Your task to perform on an android device: turn on sleep mode Image 0: 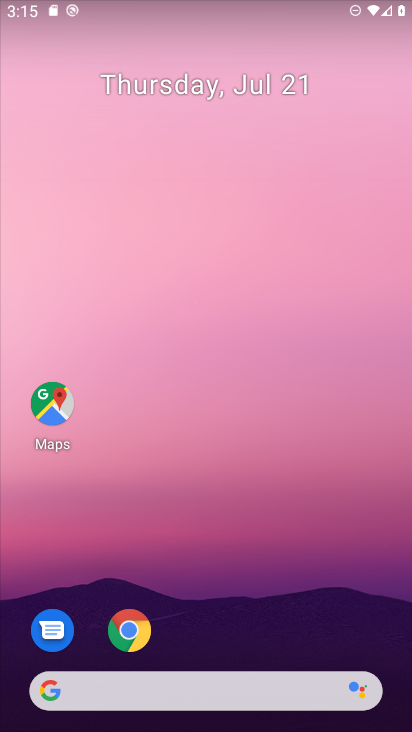
Step 0: drag from (217, 611) to (218, 11)
Your task to perform on an android device: turn on sleep mode Image 1: 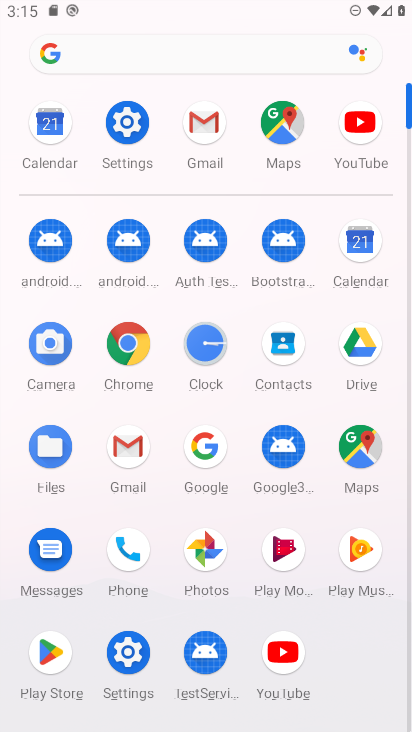
Step 1: click (135, 115)
Your task to perform on an android device: turn on sleep mode Image 2: 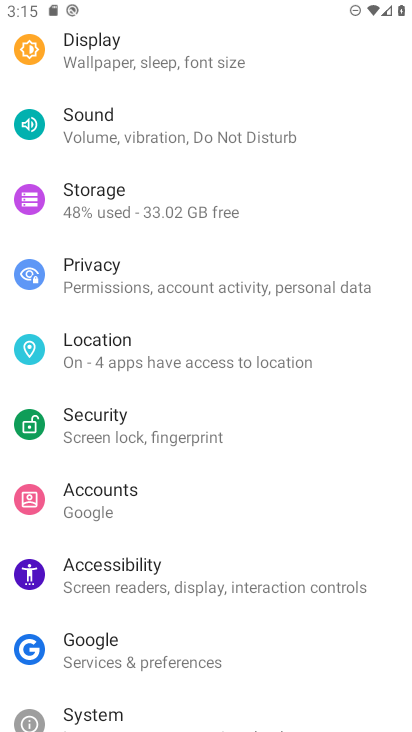
Step 2: drag from (213, 123) to (126, 687)
Your task to perform on an android device: turn on sleep mode Image 3: 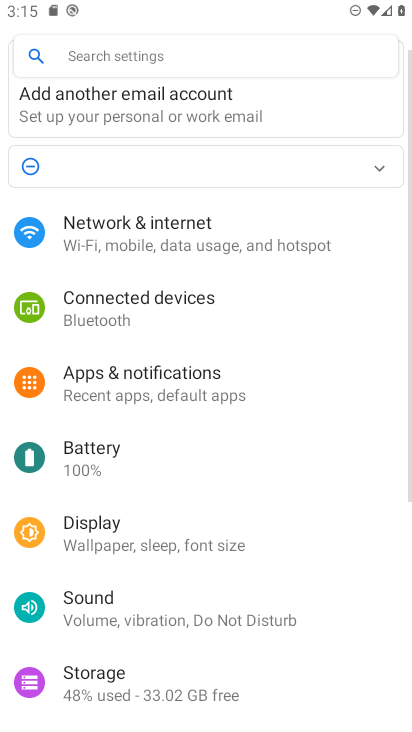
Step 3: click (153, 62)
Your task to perform on an android device: turn on sleep mode Image 4: 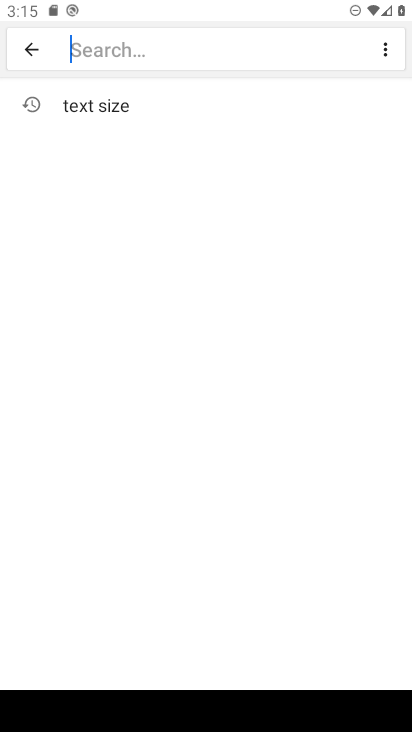
Step 4: type "sleep mode"
Your task to perform on an android device: turn on sleep mode Image 5: 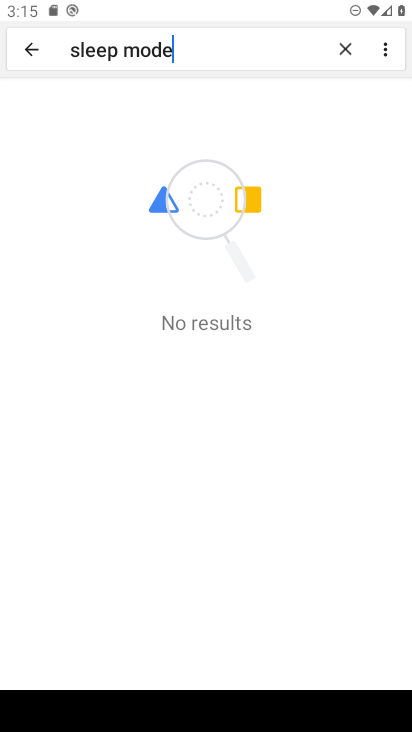
Step 5: task complete